Your task to perform on an android device: add a contact Image 0: 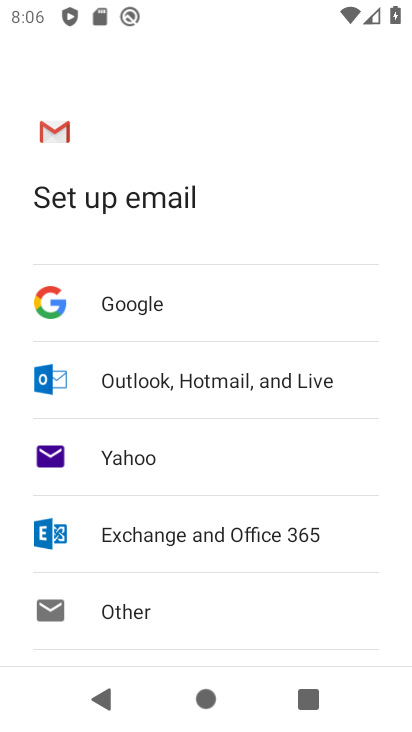
Step 0: press home button
Your task to perform on an android device: add a contact Image 1: 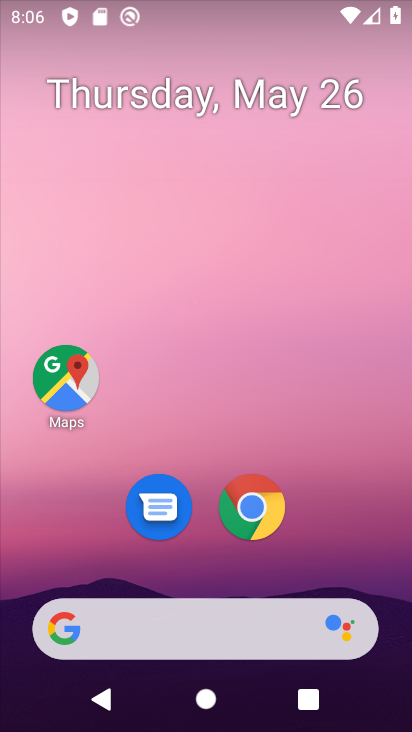
Step 1: drag from (200, 563) to (249, 133)
Your task to perform on an android device: add a contact Image 2: 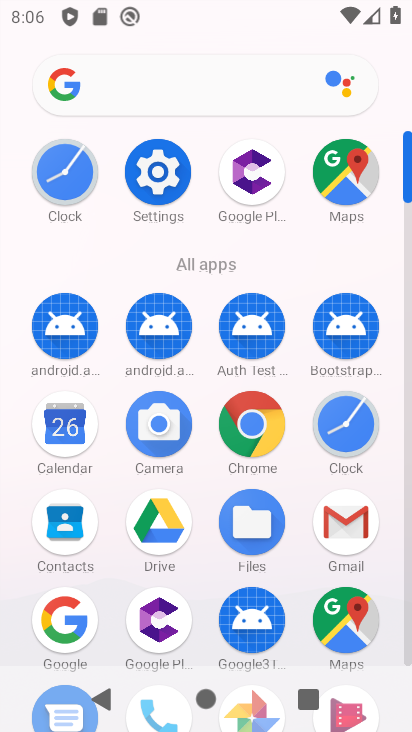
Step 2: click (64, 523)
Your task to perform on an android device: add a contact Image 3: 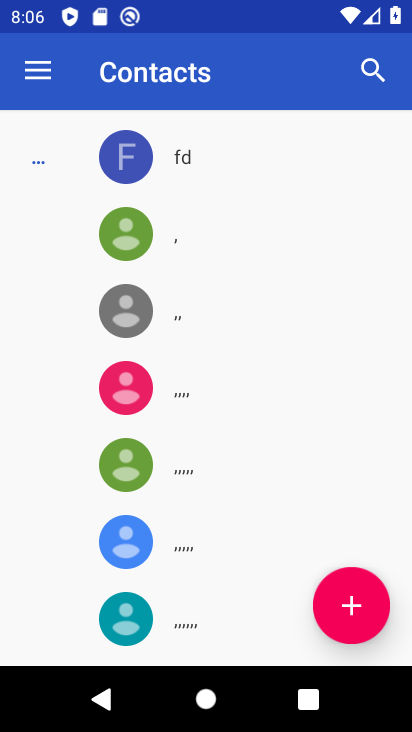
Step 3: click (353, 606)
Your task to perform on an android device: add a contact Image 4: 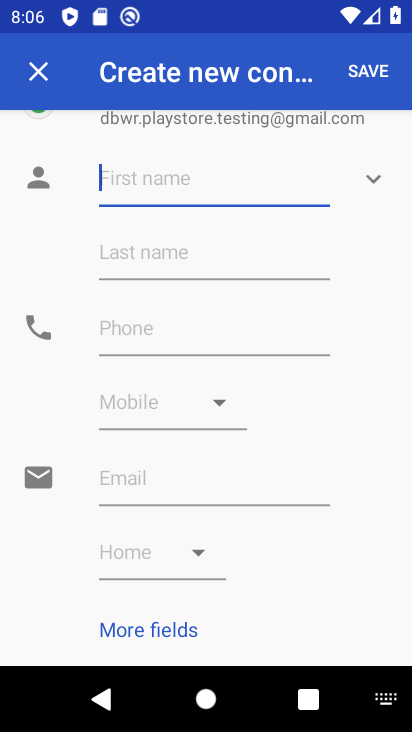
Step 4: type "dvvd"
Your task to perform on an android device: add a contact Image 5: 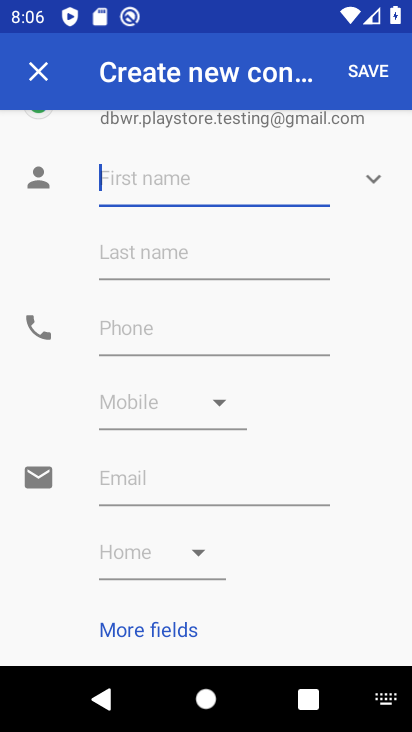
Step 5: click (190, 266)
Your task to perform on an android device: add a contact Image 6: 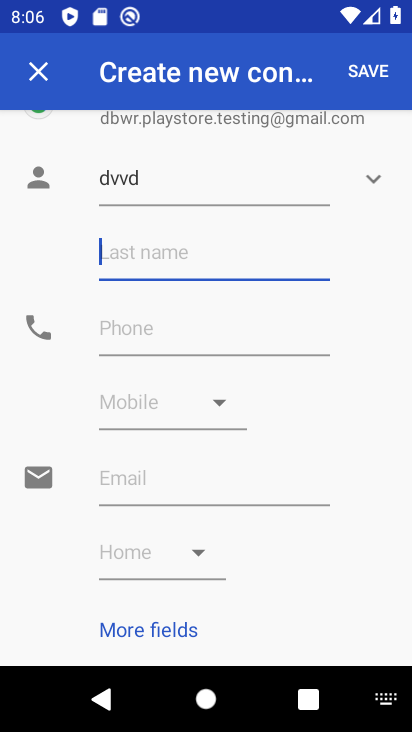
Step 6: type "fdvdb"
Your task to perform on an android device: add a contact Image 7: 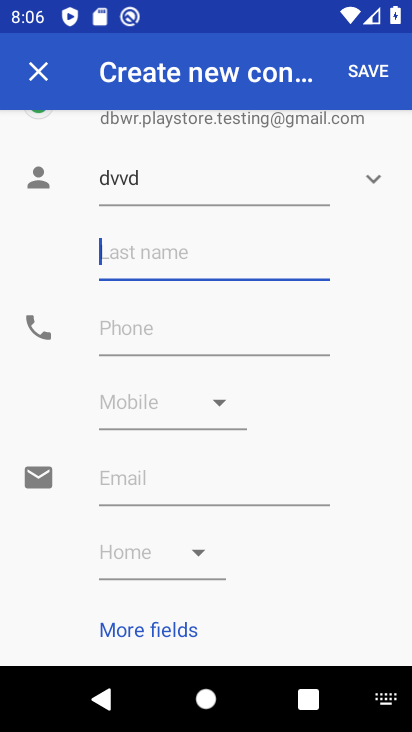
Step 7: click (182, 337)
Your task to perform on an android device: add a contact Image 8: 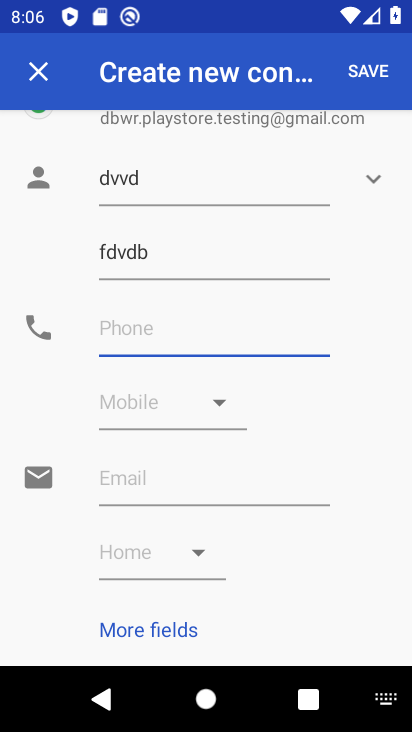
Step 8: type "352352"
Your task to perform on an android device: add a contact Image 9: 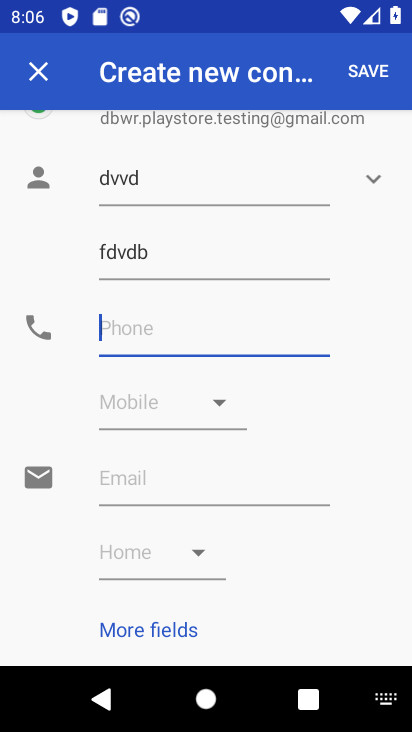
Step 9: click (142, 403)
Your task to perform on an android device: add a contact Image 10: 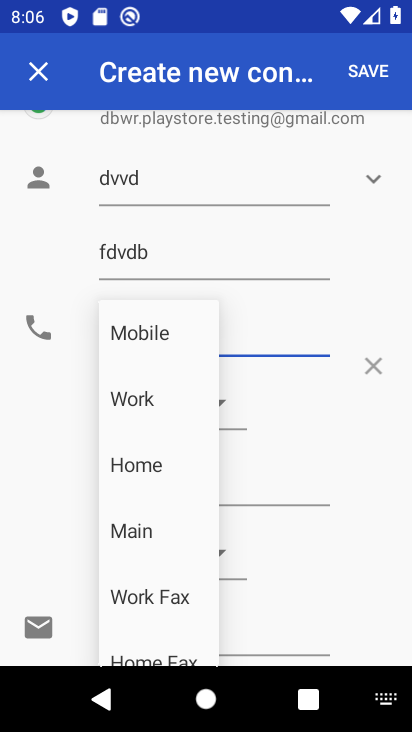
Step 10: click (146, 319)
Your task to perform on an android device: add a contact Image 11: 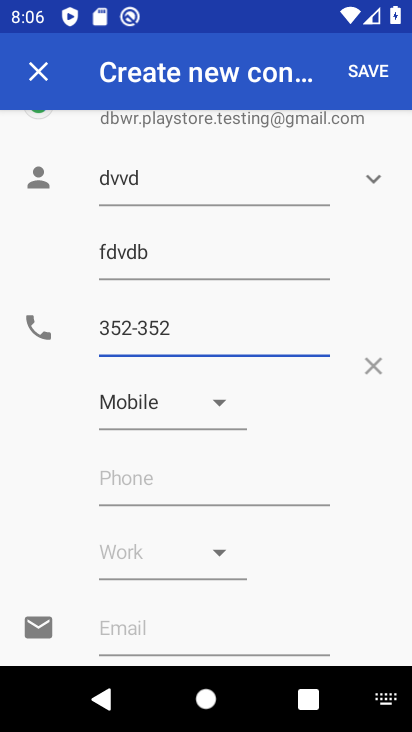
Step 11: click (374, 73)
Your task to perform on an android device: add a contact Image 12: 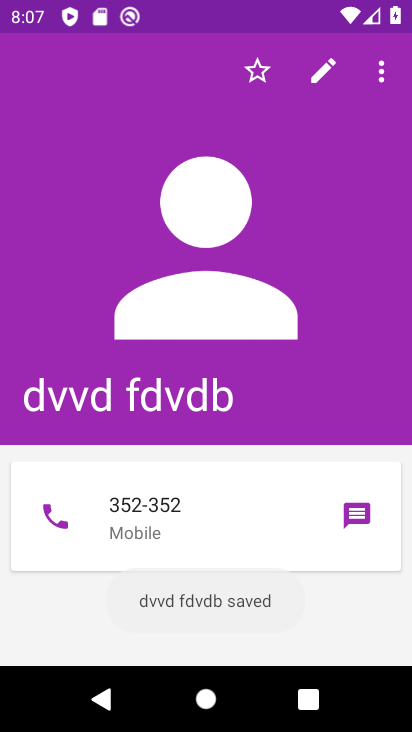
Step 12: task complete